Your task to perform on an android device: Go to CNN.com Image 0: 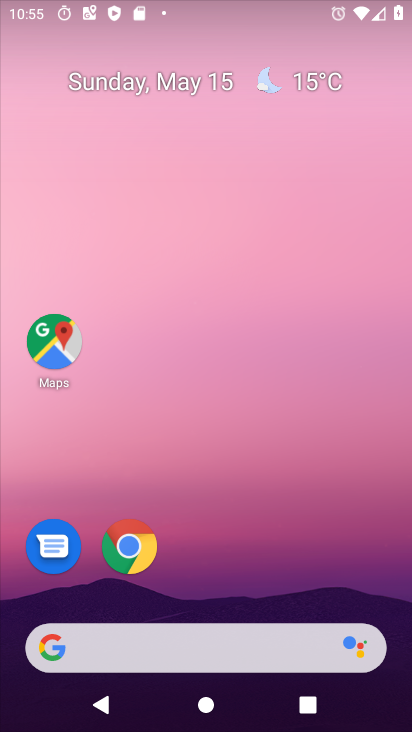
Step 0: drag from (350, 646) to (247, 233)
Your task to perform on an android device: Go to CNN.com Image 1: 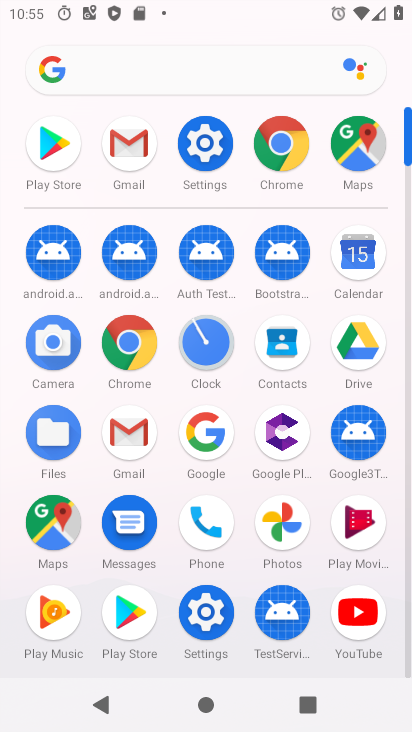
Step 1: click (141, 699)
Your task to perform on an android device: Go to CNN.com Image 2: 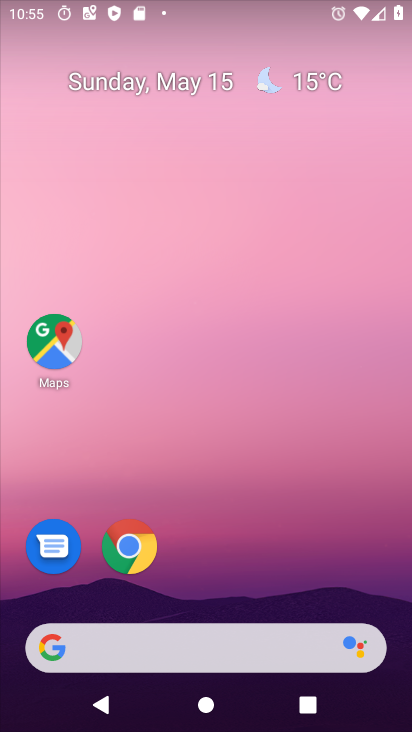
Step 2: drag from (229, 527) to (167, 58)
Your task to perform on an android device: Go to CNN.com Image 3: 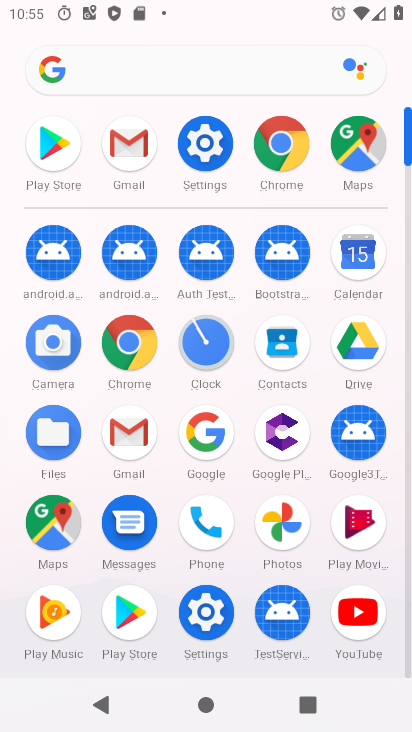
Step 3: click (296, 146)
Your task to perform on an android device: Go to CNN.com Image 4: 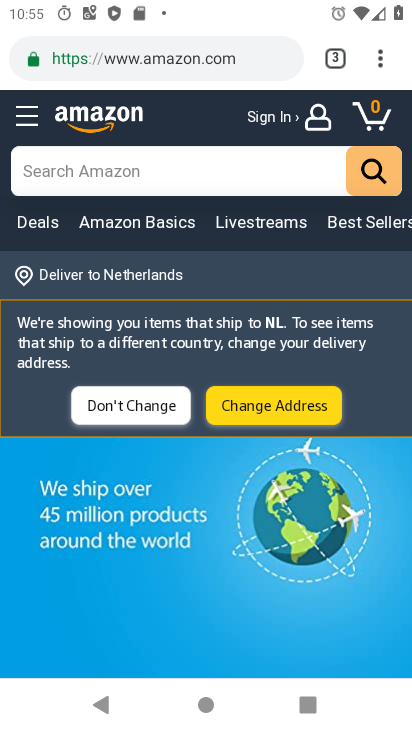
Step 4: click (374, 55)
Your task to perform on an android device: Go to CNN.com Image 5: 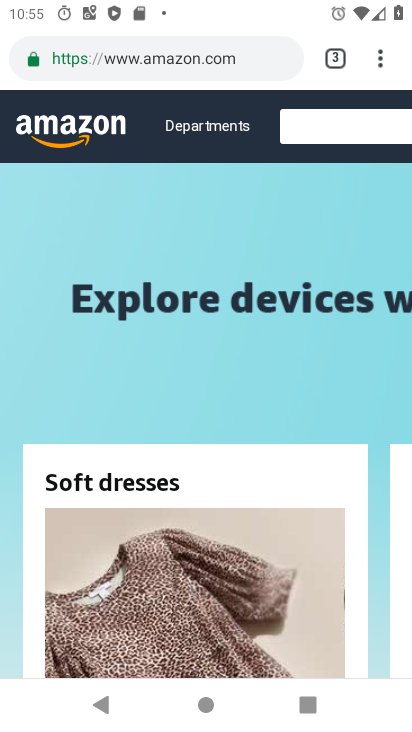
Step 5: drag from (378, 50) to (142, 112)
Your task to perform on an android device: Go to CNN.com Image 6: 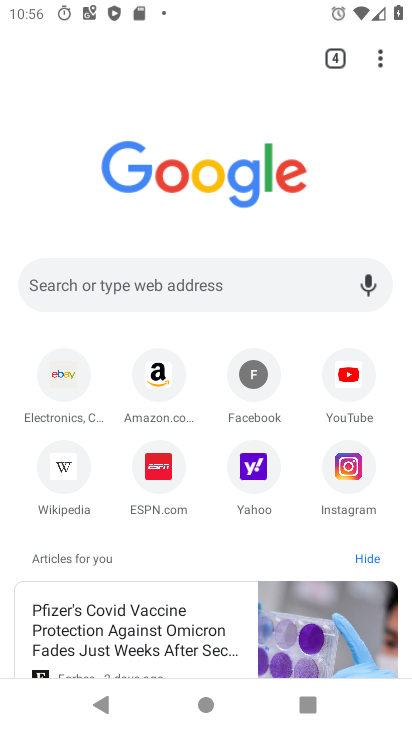
Step 6: click (52, 279)
Your task to perform on an android device: Go to CNN.com Image 7: 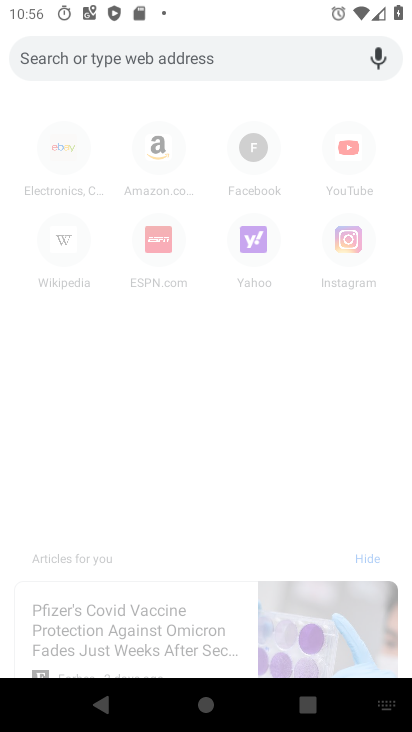
Step 7: type "www.cnn.com"
Your task to perform on an android device: Go to CNN.com Image 8: 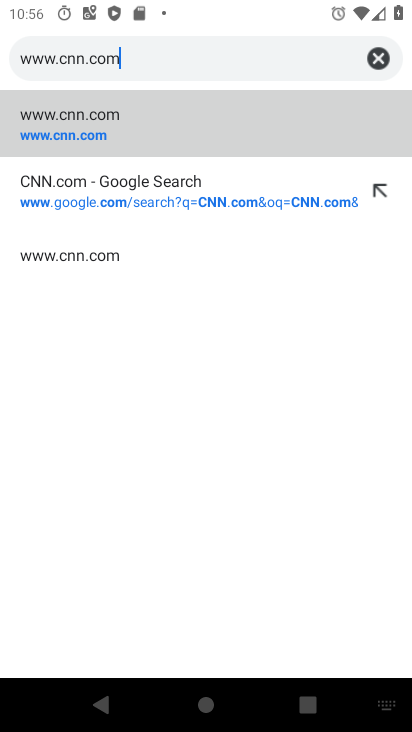
Step 8: click (95, 145)
Your task to perform on an android device: Go to CNN.com Image 9: 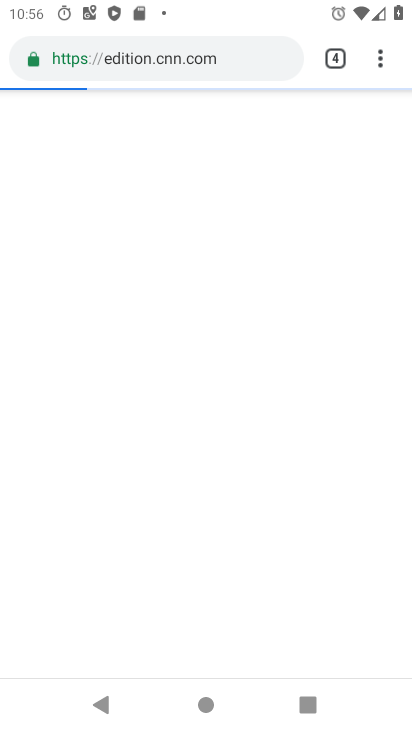
Step 9: click (95, 145)
Your task to perform on an android device: Go to CNN.com Image 10: 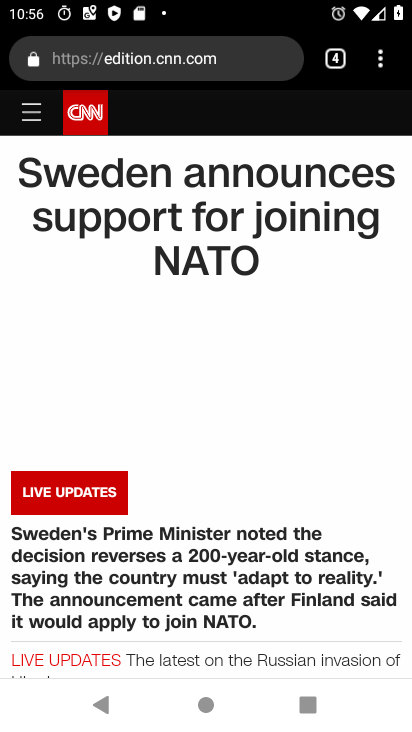
Step 10: task complete